Your task to perform on an android device: Open the stopwatch Image 0: 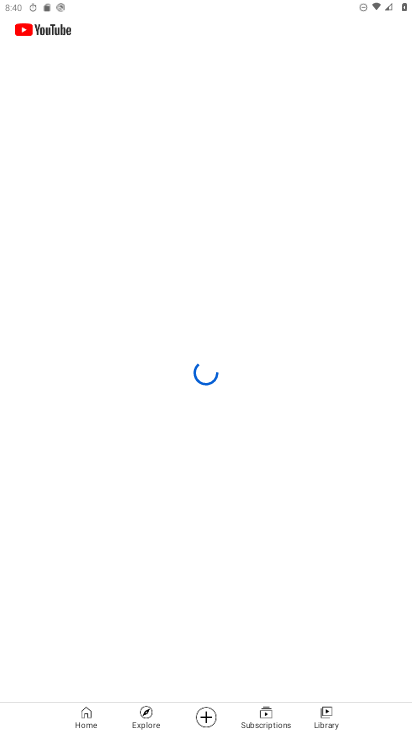
Step 0: click (308, 5)
Your task to perform on an android device: Open the stopwatch Image 1: 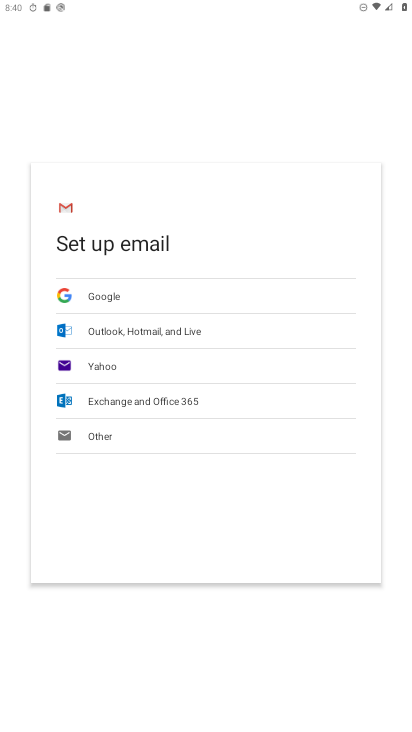
Step 1: press home button
Your task to perform on an android device: Open the stopwatch Image 2: 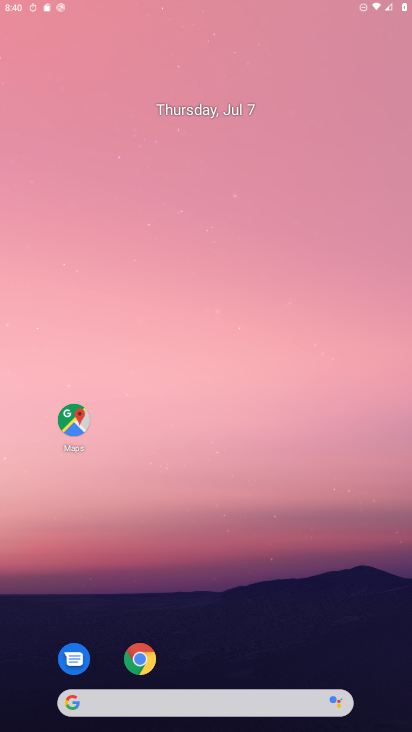
Step 2: drag from (391, 708) to (243, 40)
Your task to perform on an android device: Open the stopwatch Image 3: 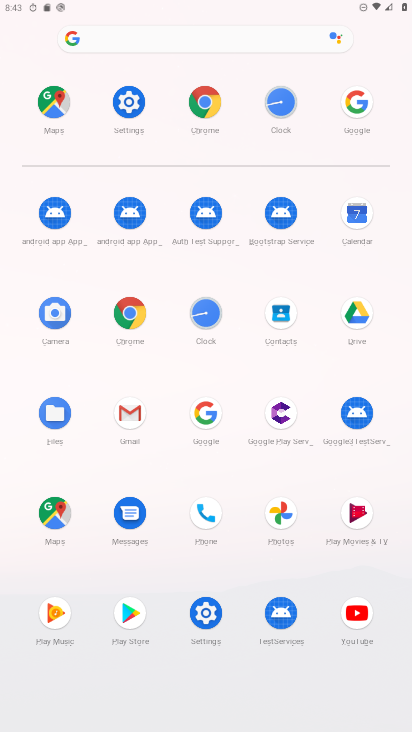
Step 3: click (202, 324)
Your task to perform on an android device: Open the stopwatch Image 4: 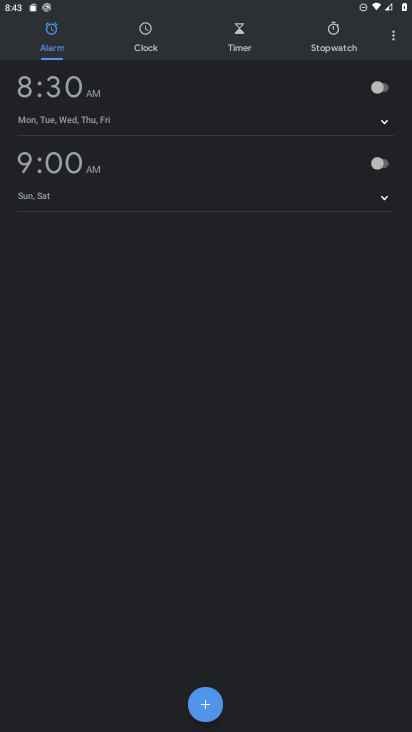
Step 4: click (329, 28)
Your task to perform on an android device: Open the stopwatch Image 5: 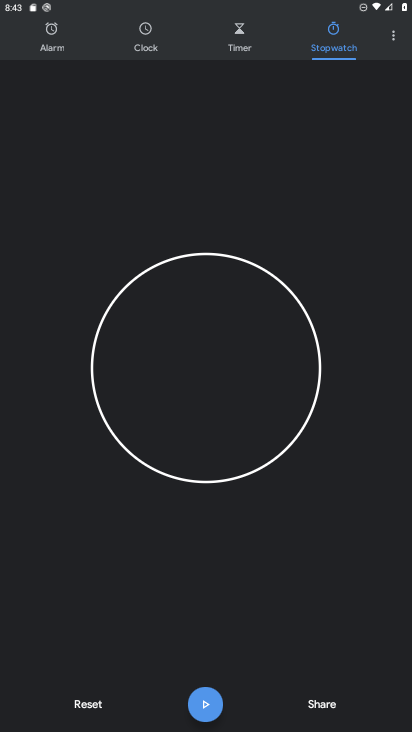
Step 5: task complete